Your task to perform on an android device: Show the shopping cart on ebay. Image 0: 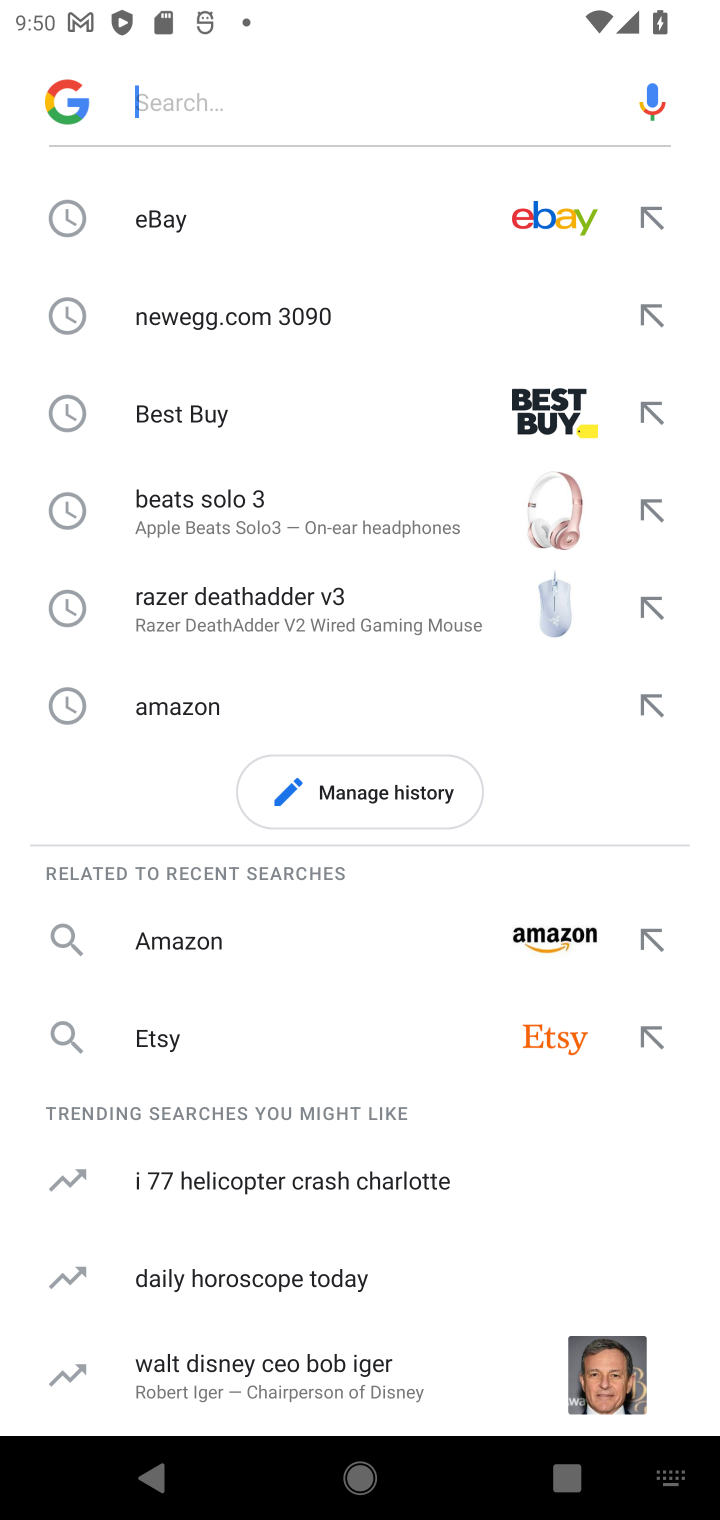
Step 0: task complete